Your task to perform on an android device: When is my next meeting? Image 0: 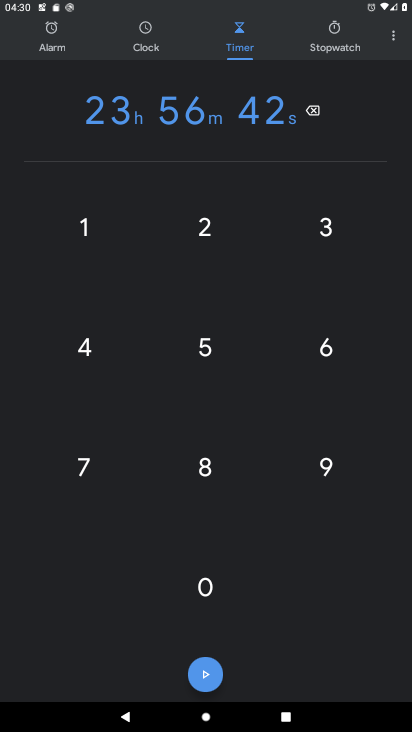
Step 0: press home button
Your task to perform on an android device: When is my next meeting? Image 1: 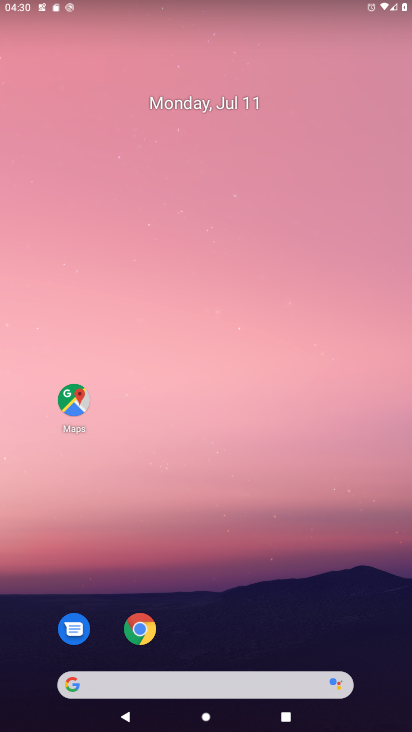
Step 1: drag from (220, 630) to (226, 40)
Your task to perform on an android device: When is my next meeting? Image 2: 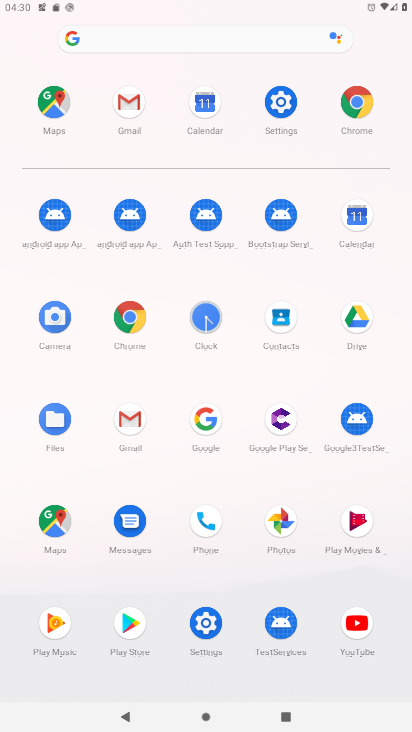
Step 2: click (357, 219)
Your task to perform on an android device: When is my next meeting? Image 3: 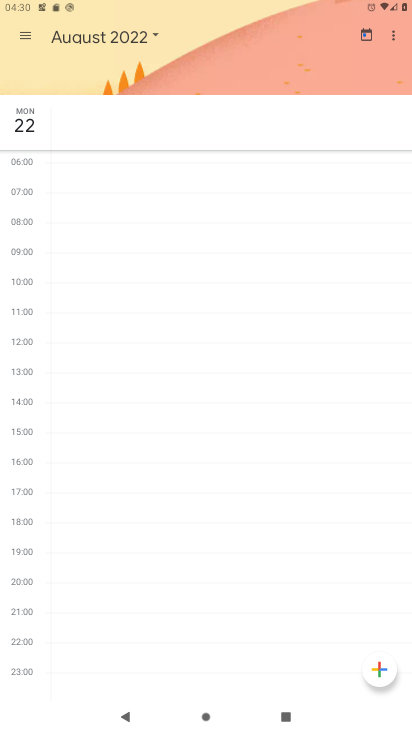
Step 3: click (12, 35)
Your task to perform on an android device: When is my next meeting? Image 4: 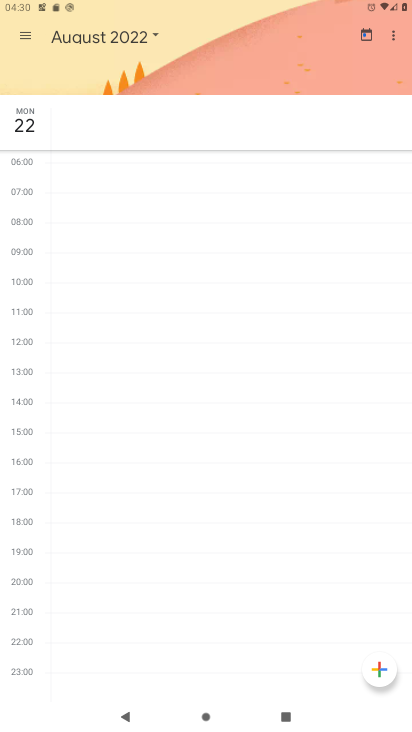
Step 4: click (24, 36)
Your task to perform on an android device: When is my next meeting? Image 5: 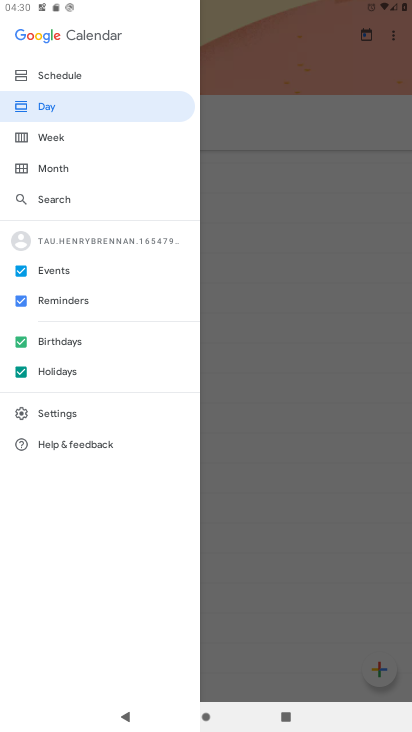
Step 5: click (72, 71)
Your task to perform on an android device: When is my next meeting? Image 6: 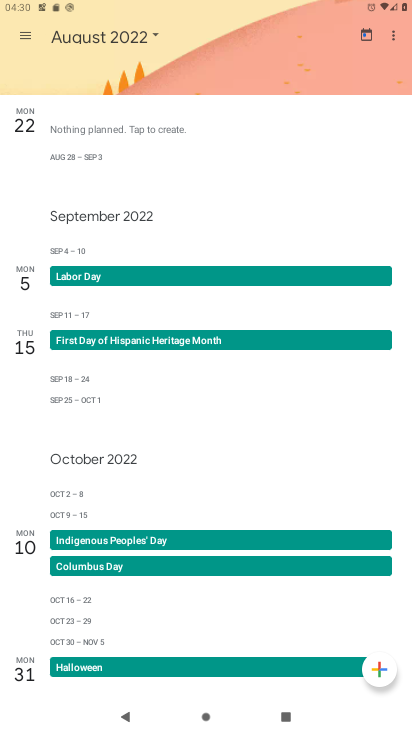
Step 6: task complete